Your task to perform on an android device: open app "Google Docs" (install if not already installed) Image 0: 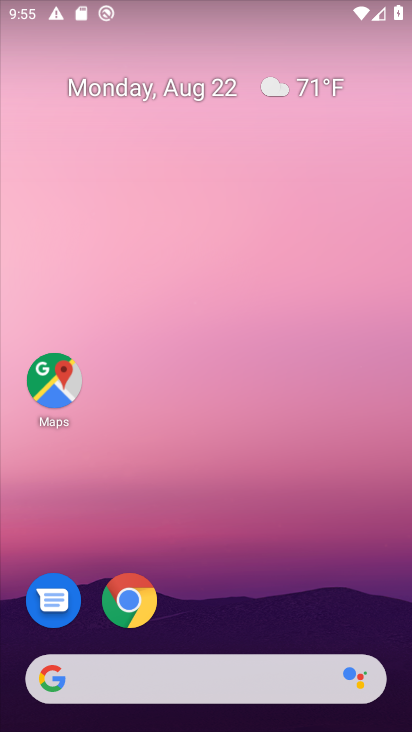
Step 0: drag from (210, 558) to (229, 212)
Your task to perform on an android device: open app "Google Docs" (install if not already installed) Image 1: 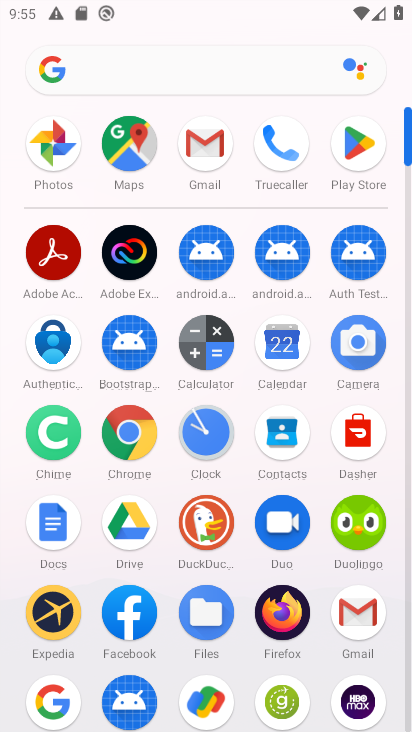
Step 1: click (357, 142)
Your task to perform on an android device: open app "Google Docs" (install if not already installed) Image 2: 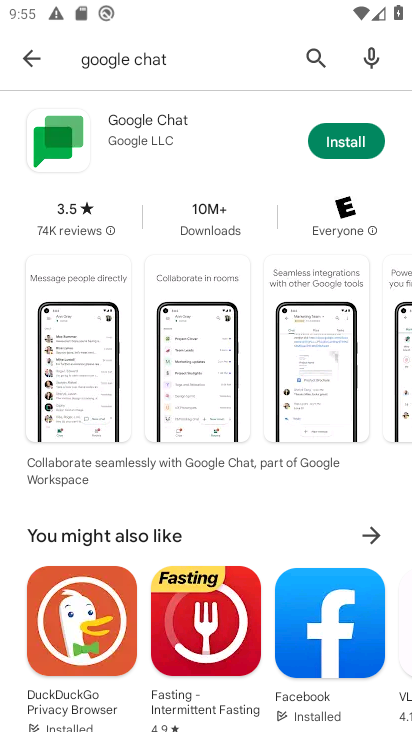
Step 2: click (317, 63)
Your task to perform on an android device: open app "Google Docs" (install if not already installed) Image 3: 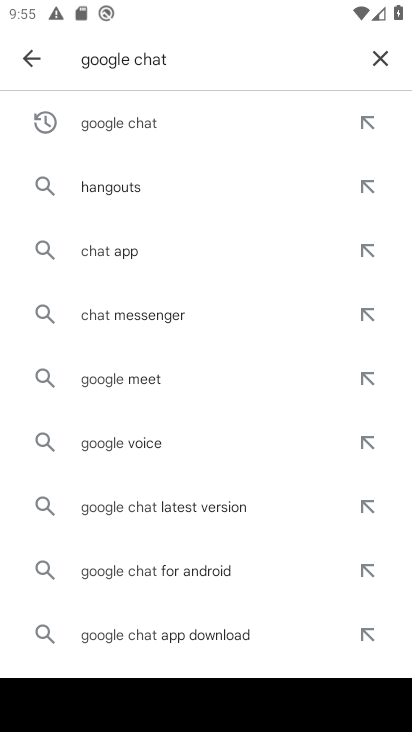
Step 3: click (374, 53)
Your task to perform on an android device: open app "Google Docs" (install if not already installed) Image 4: 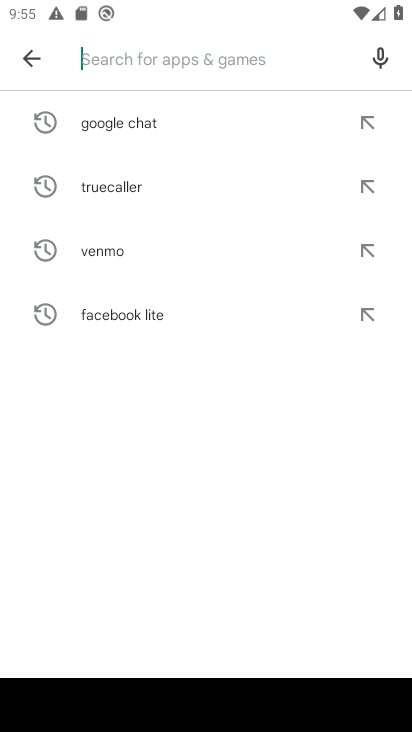
Step 4: type "Google Docs"
Your task to perform on an android device: open app "Google Docs" (install if not already installed) Image 5: 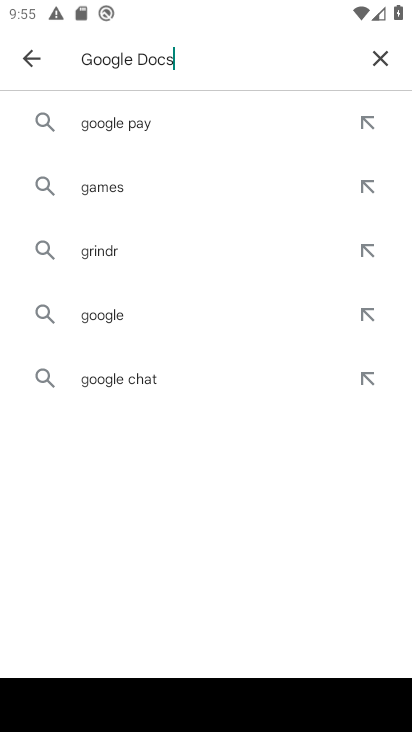
Step 5: type ""
Your task to perform on an android device: open app "Google Docs" (install if not already installed) Image 6: 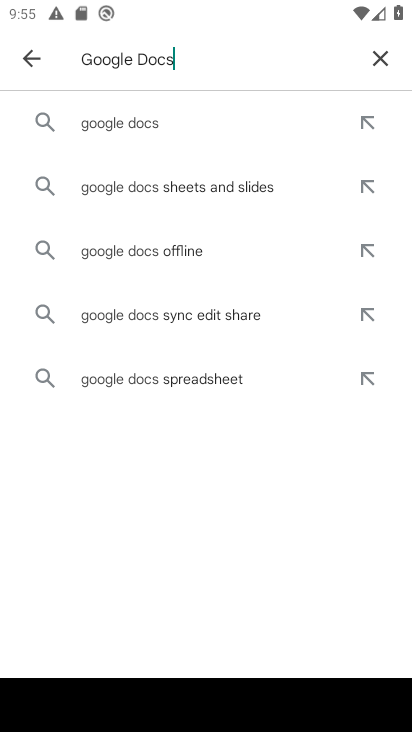
Step 6: click (194, 119)
Your task to perform on an android device: open app "Google Docs" (install if not already installed) Image 7: 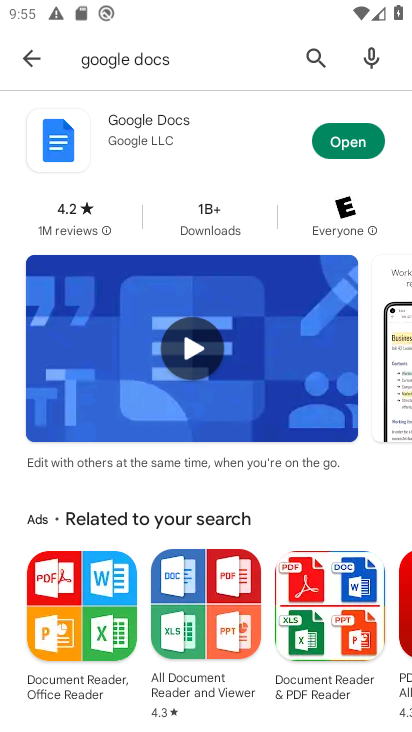
Step 7: click (344, 146)
Your task to perform on an android device: open app "Google Docs" (install if not already installed) Image 8: 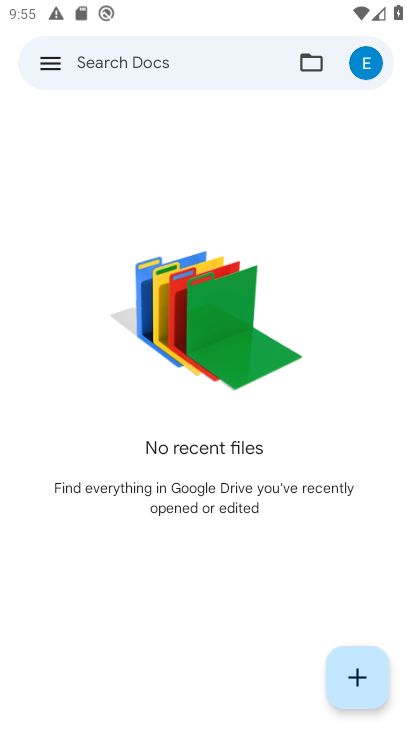
Step 8: task complete